Your task to perform on an android device: check android version Image 0: 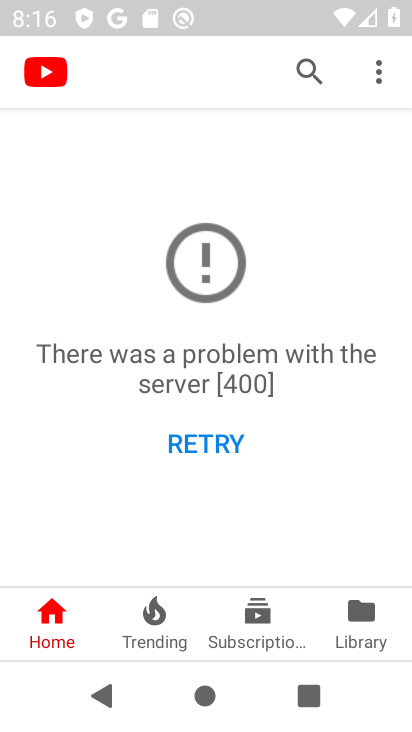
Step 0: press back button
Your task to perform on an android device: check android version Image 1: 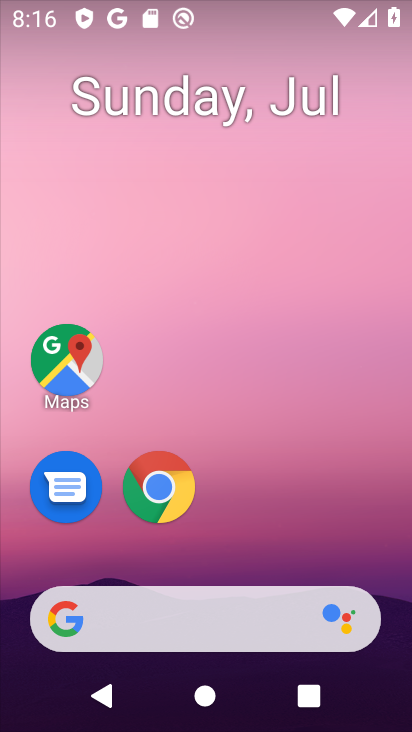
Step 1: drag from (225, 468) to (298, 16)
Your task to perform on an android device: check android version Image 2: 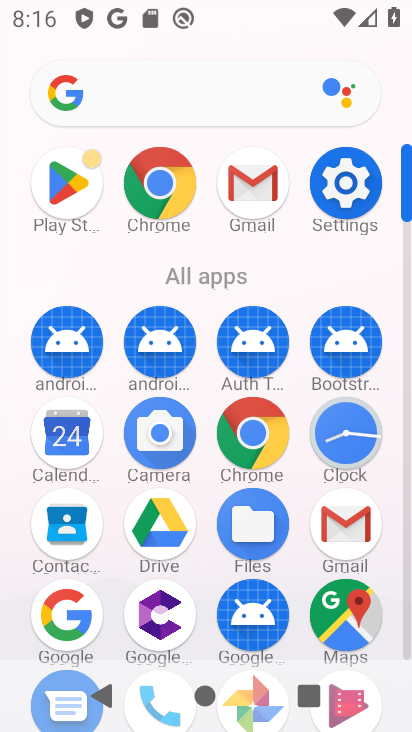
Step 2: click (345, 186)
Your task to perform on an android device: check android version Image 3: 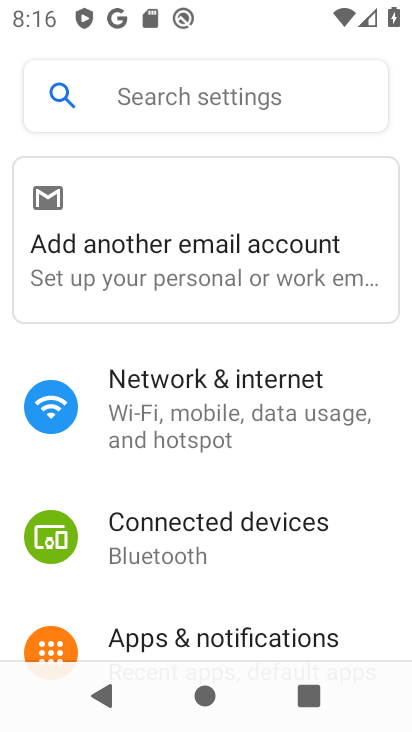
Step 3: drag from (181, 609) to (258, 0)
Your task to perform on an android device: check android version Image 4: 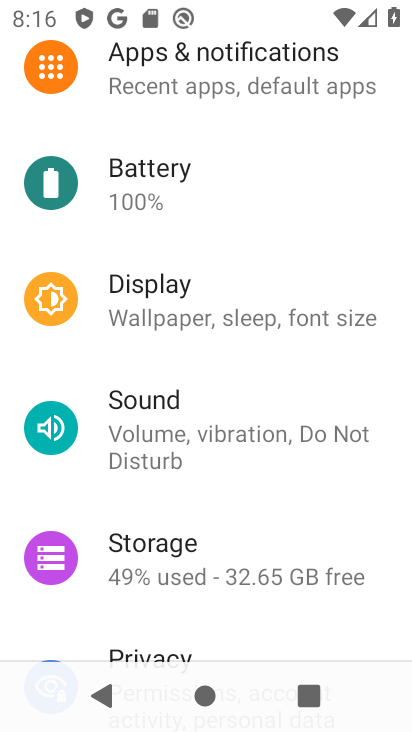
Step 4: drag from (139, 581) to (326, 10)
Your task to perform on an android device: check android version Image 5: 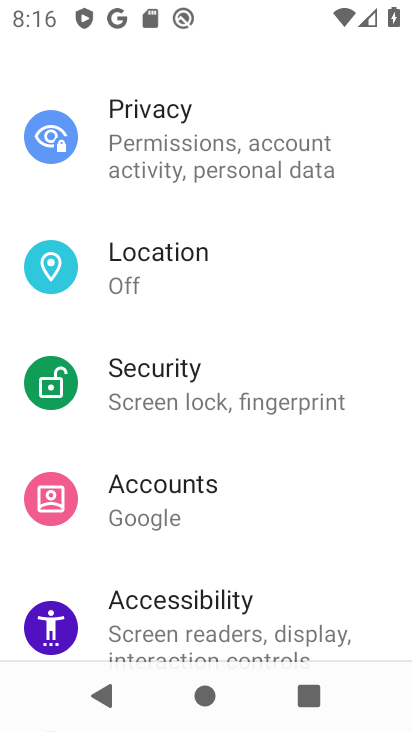
Step 5: click (189, 608)
Your task to perform on an android device: check android version Image 6: 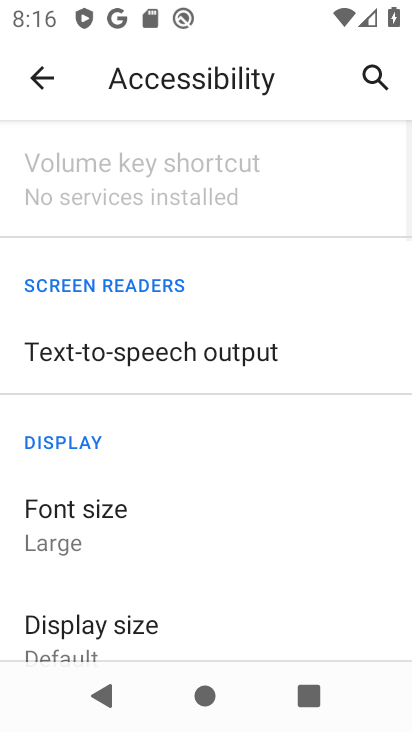
Step 6: click (74, 65)
Your task to perform on an android device: check android version Image 7: 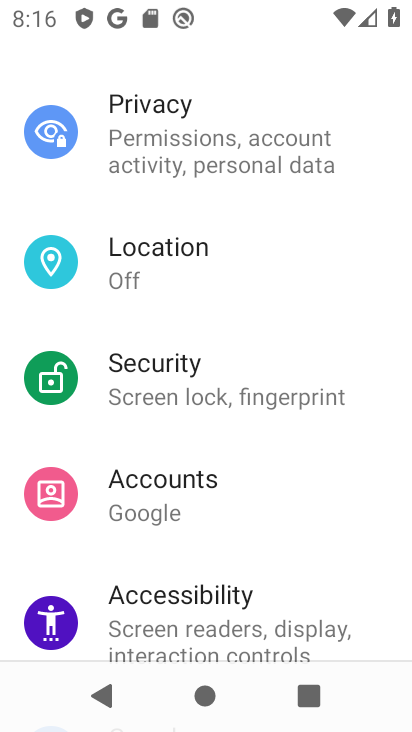
Step 7: drag from (210, 565) to (291, 15)
Your task to perform on an android device: check android version Image 8: 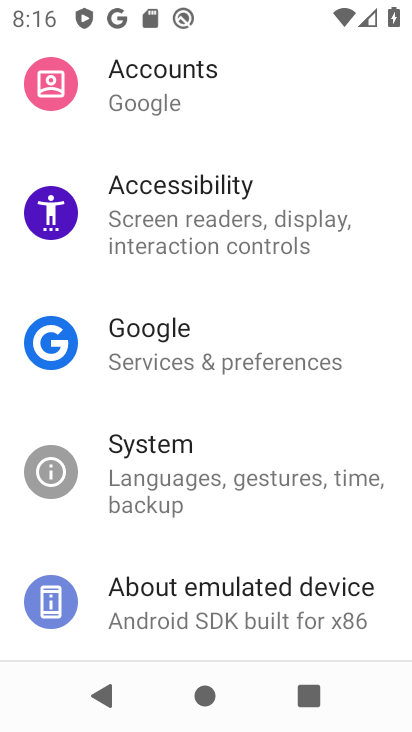
Step 8: click (173, 606)
Your task to perform on an android device: check android version Image 9: 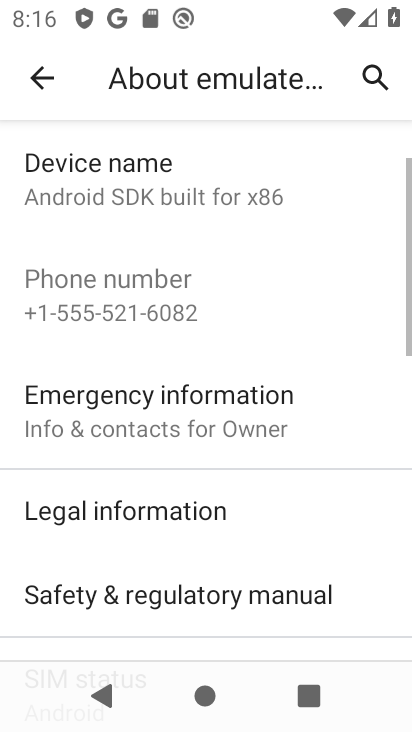
Step 9: drag from (173, 606) to (228, 246)
Your task to perform on an android device: check android version Image 10: 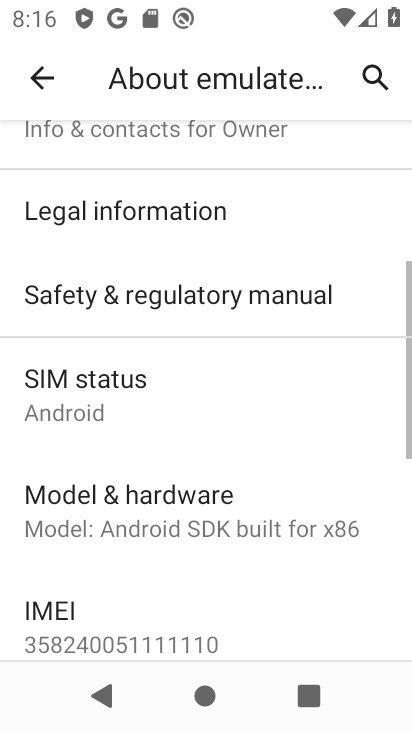
Step 10: drag from (149, 609) to (274, 92)
Your task to perform on an android device: check android version Image 11: 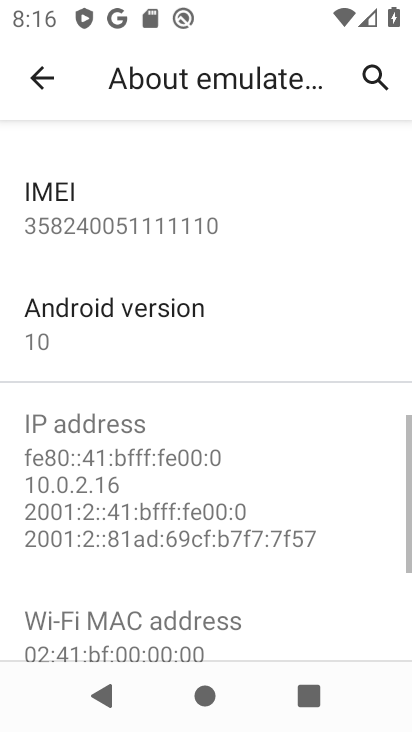
Step 11: click (92, 318)
Your task to perform on an android device: check android version Image 12: 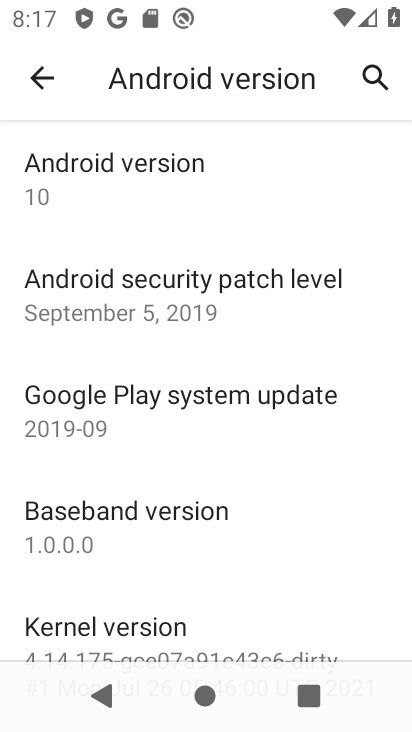
Step 12: click (72, 184)
Your task to perform on an android device: check android version Image 13: 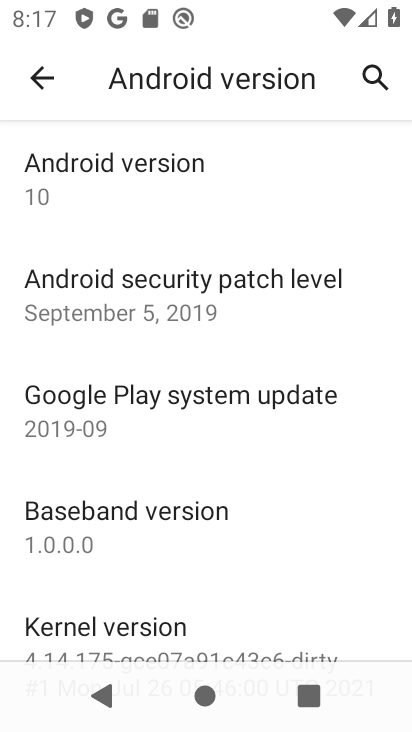
Step 13: task complete